Your task to perform on an android device: Search for sushi restaurants on Maps Image 0: 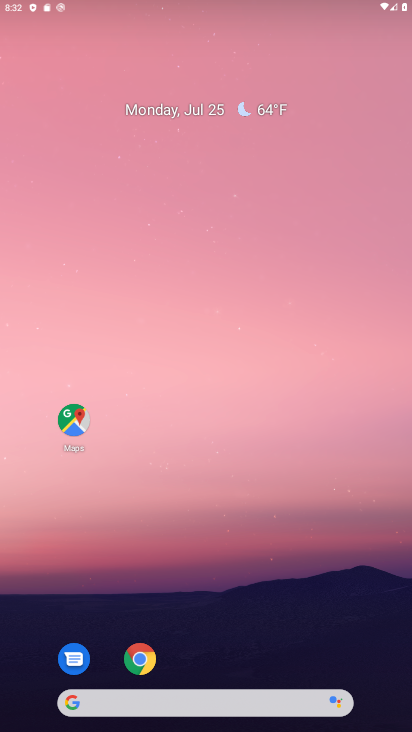
Step 0: press home button
Your task to perform on an android device: Search for sushi restaurants on Maps Image 1: 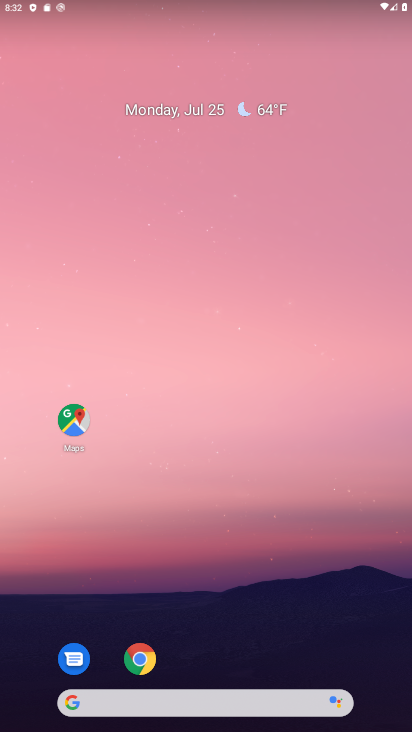
Step 1: drag from (355, 640) to (353, 165)
Your task to perform on an android device: Search for sushi restaurants on Maps Image 2: 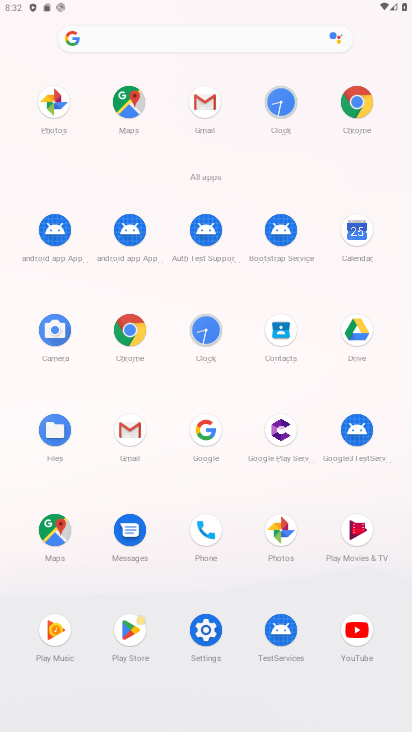
Step 2: click (51, 531)
Your task to perform on an android device: Search for sushi restaurants on Maps Image 3: 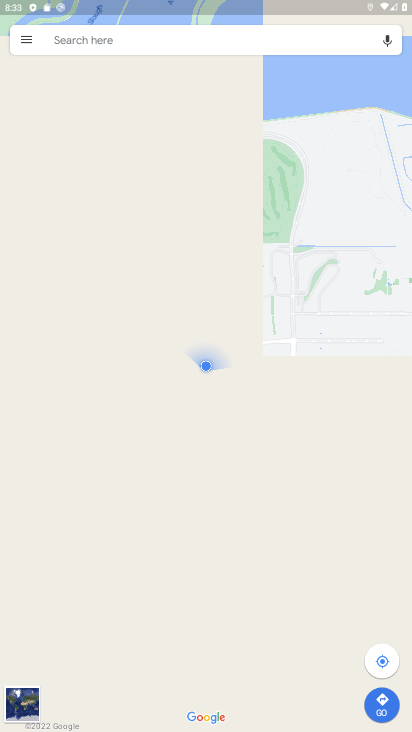
Step 3: click (175, 34)
Your task to perform on an android device: Search for sushi restaurants on Maps Image 4: 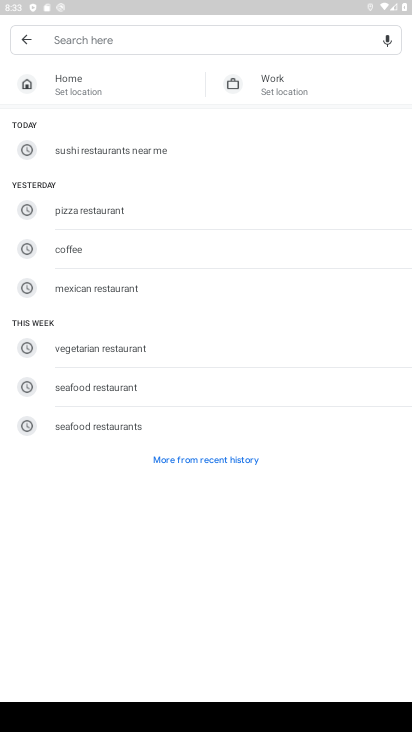
Step 4: type "sushi restaurants"
Your task to perform on an android device: Search for sushi restaurants on Maps Image 5: 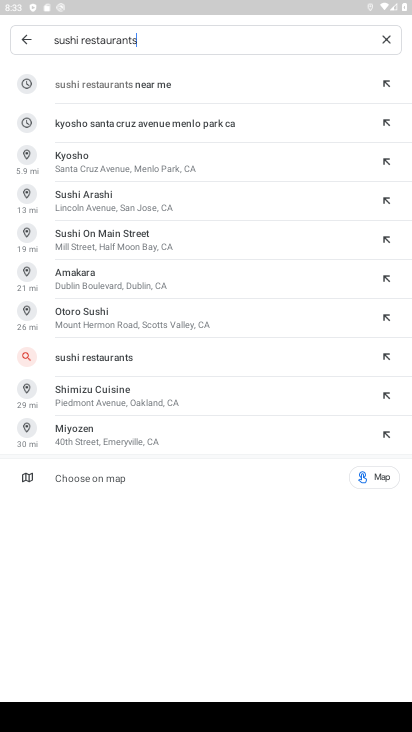
Step 5: click (229, 347)
Your task to perform on an android device: Search for sushi restaurants on Maps Image 6: 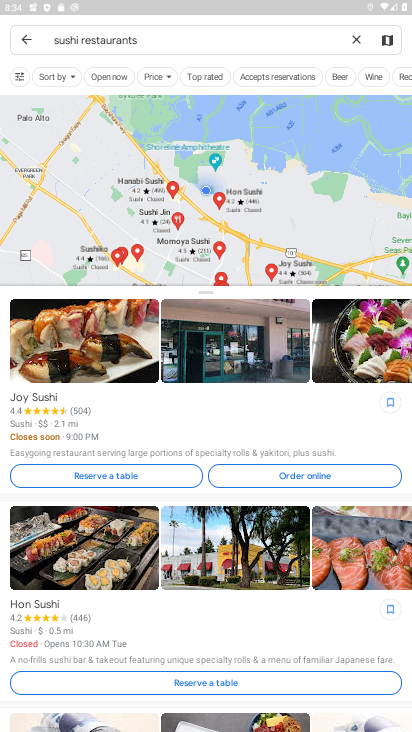
Step 6: task complete